Your task to perform on an android device: turn on data saver in the chrome app Image 0: 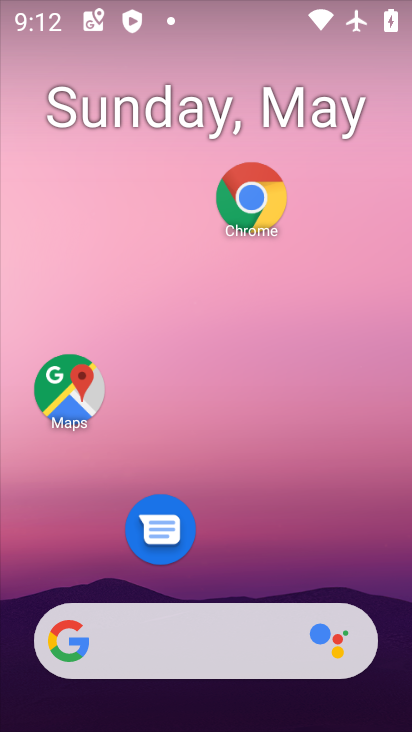
Step 0: click (256, 193)
Your task to perform on an android device: turn on data saver in the chrome app Image 1: 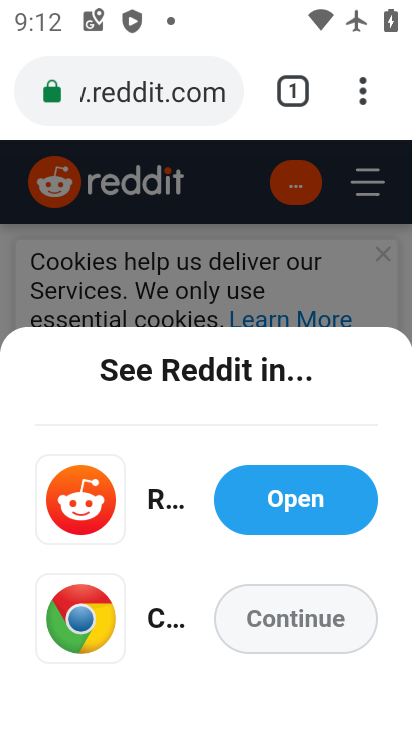
Step 1: click (357, 100)
Your task to perform on an android device: turn on data saver in the chrome app Image 2: 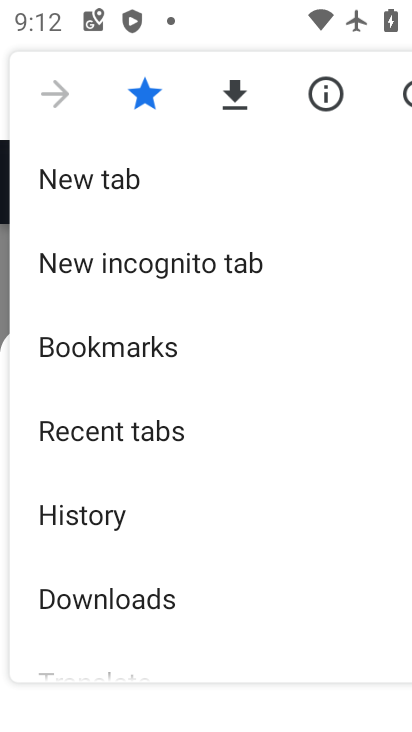
Step 2: drag from (168, 610) to (195, 352)
Your task to perform on an android device: turn on data saver in the chrome app Image 3: 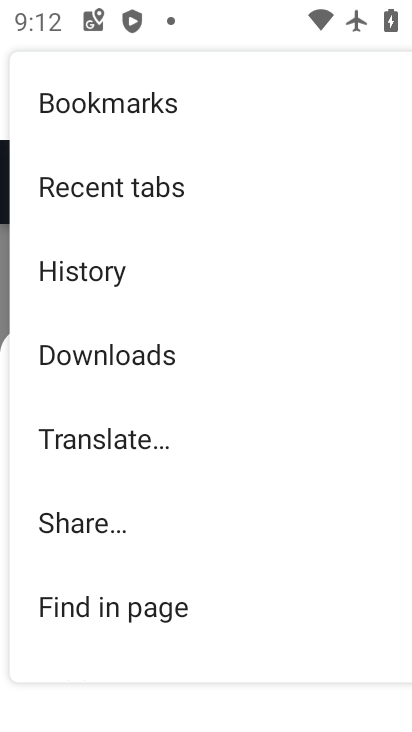
Step 3: drag from (152, 585) to (137, 323)
Your task to perform on an android device: turn on data saver in the chrome app Image 4: 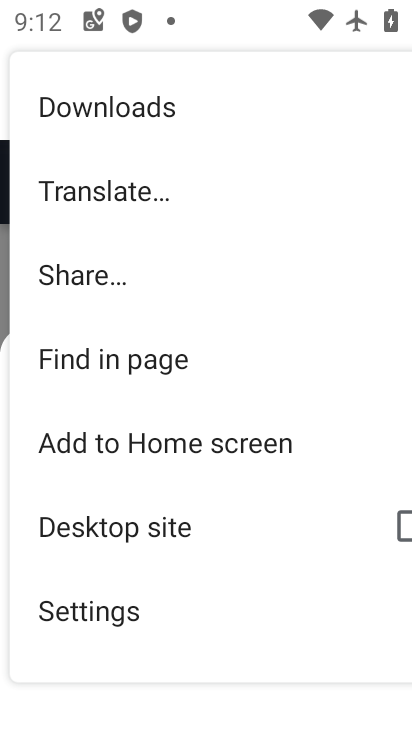
Step 4: click (119, 615)
Your task to perform on an android device: turn on data saver in the chrome app Image 5: 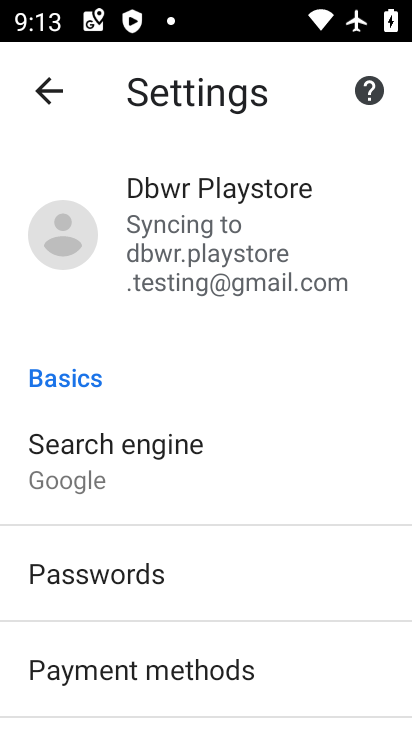
Step 5: drag from (123, 656) to (166, 308)
Your task to perform on an android device: turn on data saver in the chrome app Image 6: 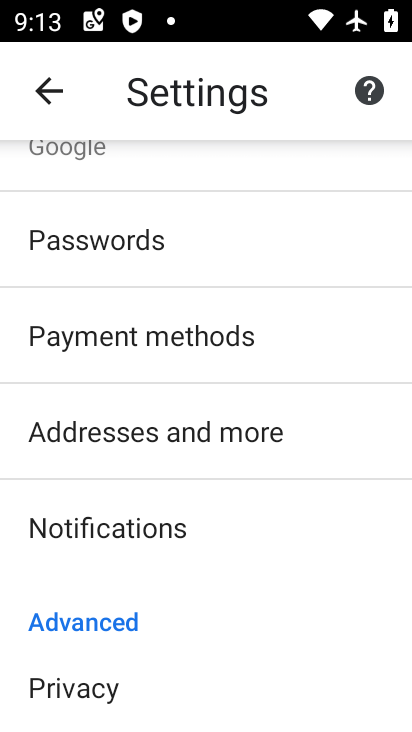
Step 6: drag from (168, 634) to (171, 333)
Your task to perform on an android device: turn on data saver in the chrome app Image 7: 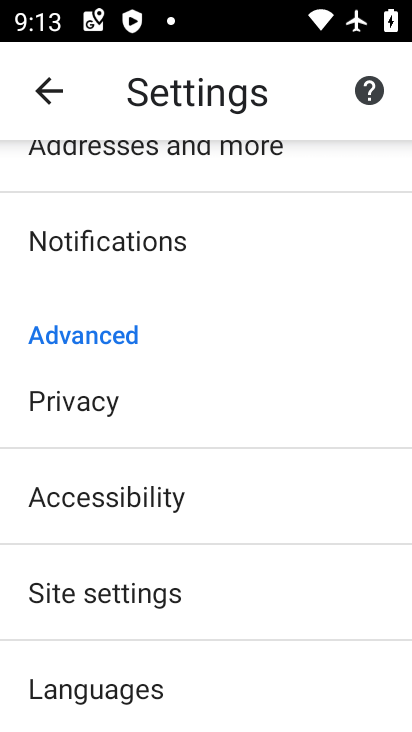
Step 7: drag from (159, 695) to (178, 435)
Your task to perform on an android device: turn on data saver in the chrome app Image 8: 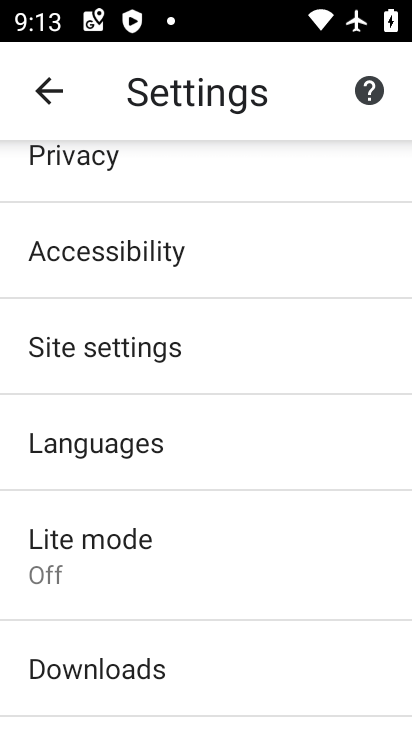
Step 8: click (101, 566)
Your task to perform on an android device: turn on data saver in the chrome app Image 9: 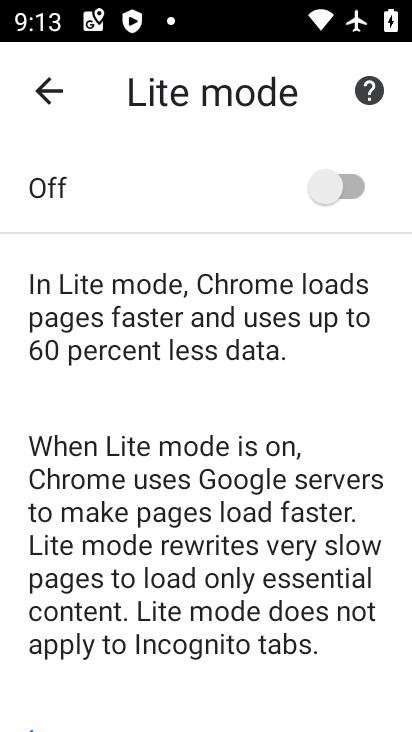
Step 9: click (352, 188)
Your task to perform on an android device: turn on data saver in the chrome app Image 10: 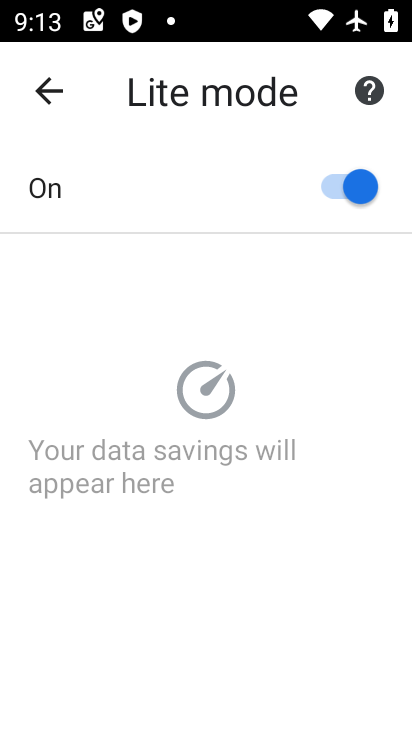
Step 10: task complete